Your task to perform on an android device: turn on translation in the chrome app Image 0: 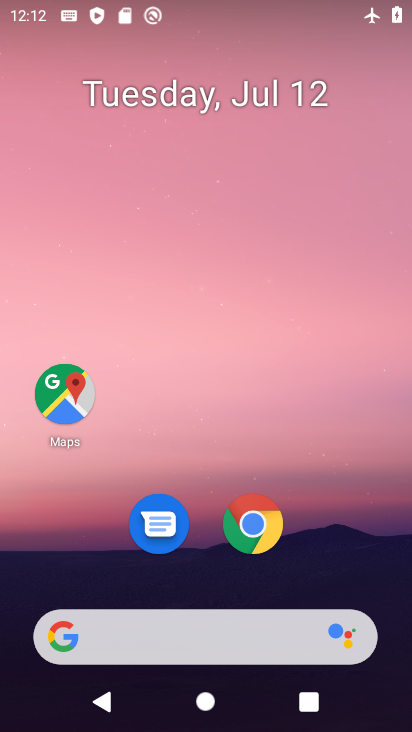
Step 0: click (267, 515)
Your task to perform on an android device: turn on translation in the chrome app Image 1: 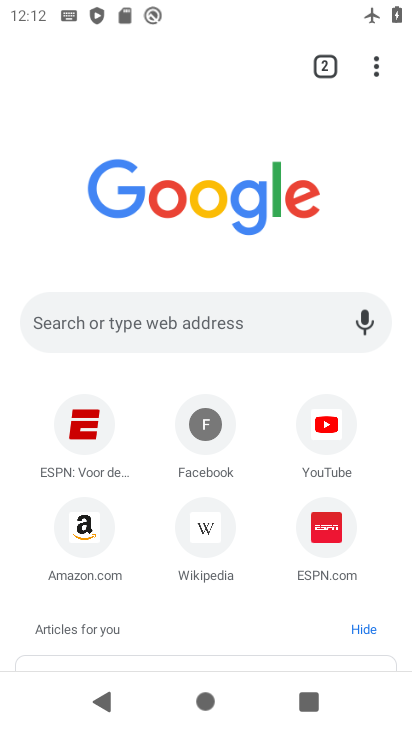
Step 1: click (377, 64)
Your task to perform on an android device: turn on translation in the chrome app Image 2: 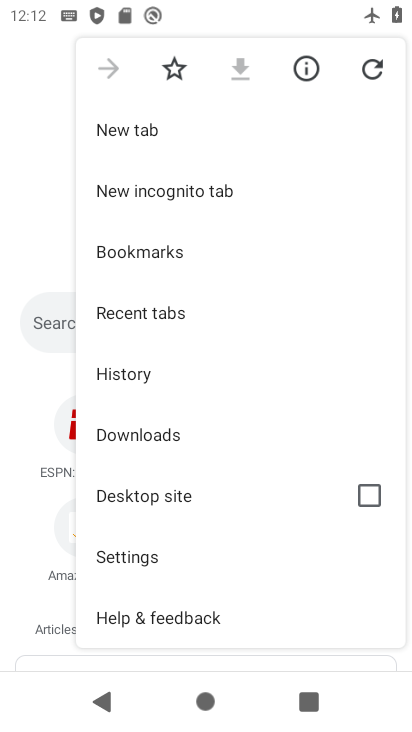
Step 2: click (165, 557)
Your task to perform on an android device: turn on translation in the chrome app Image 3: 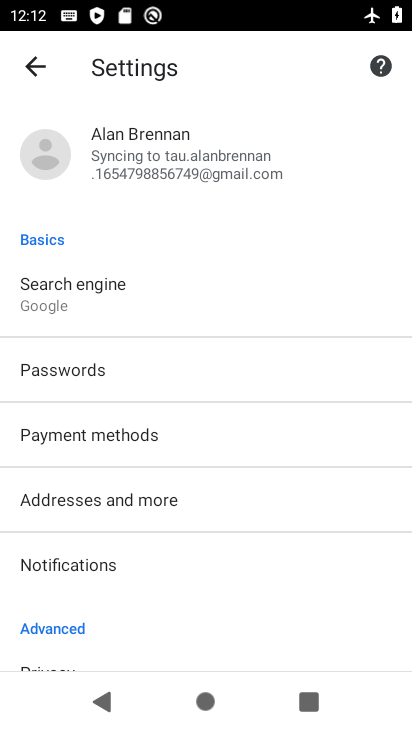
Step 3: drag from (267, 544) to (286, 199)
Your task to perform on an android device: turn on translation in the chrome app Image 4: 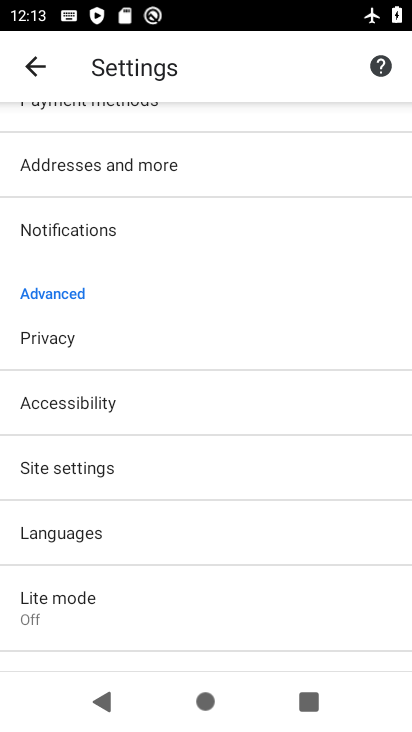
Step 4: click (202, 523)
Your task to perform on an android device: turn on translation in the chrome app Image 5: 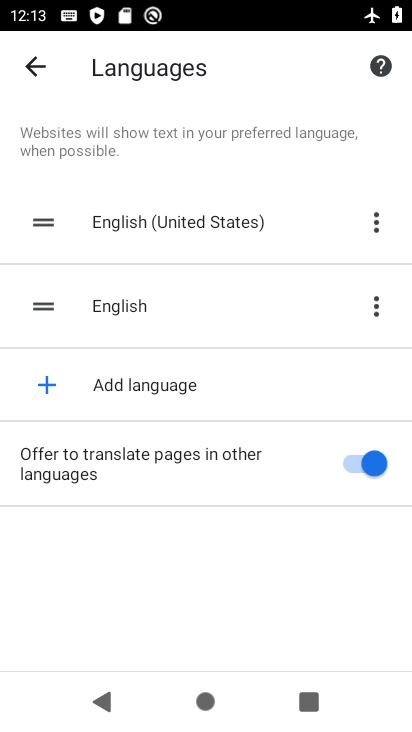
Step 5: task complete